Your task to perform on an android device: Open the calendar and show me this week's events? Image 0: 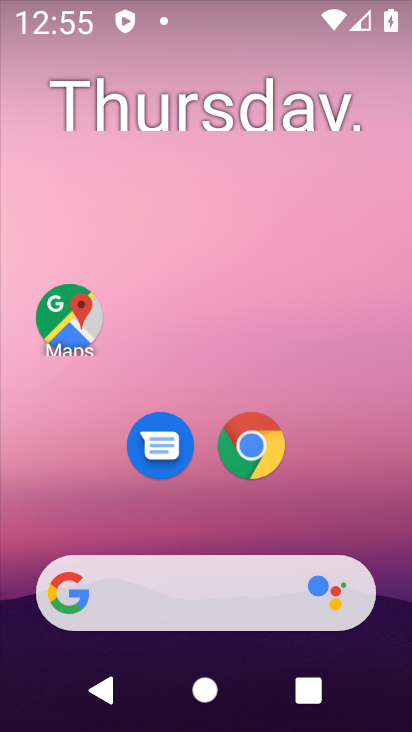
Step 0: click (221, 102)
Your task to perform on an android device: Open the calendar and show me this week's events? Image 1: 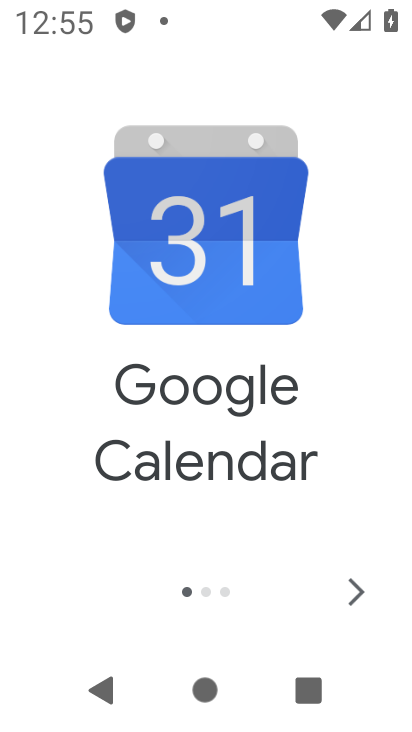
Step 1: click (339, 584)
Your task to perform on an android device: Open the calendar and show me this week's events? Image 2: 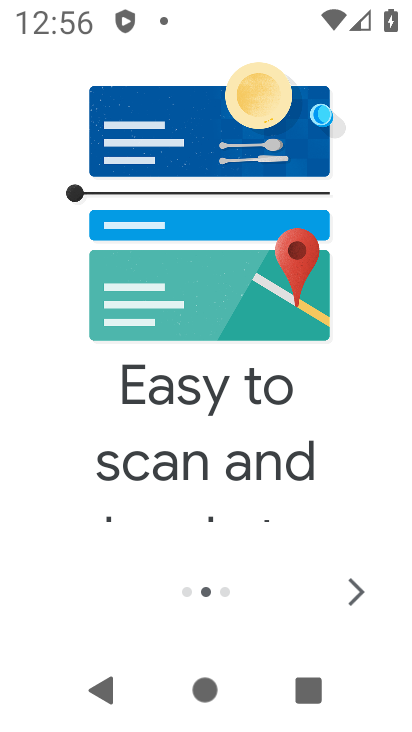
Step 2: click (358, 587)
Your task to perform on an android device: Open the calendar and show me this week's events? Image 3: 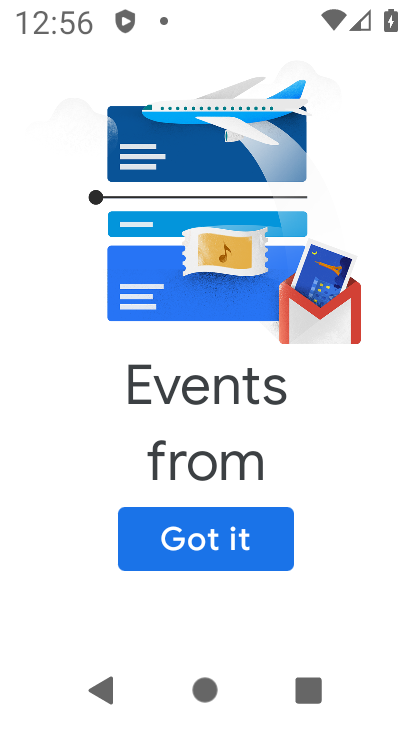
Step 3: click (274, 573)
Your task to perform on an android device: Open the calendar and show me this week's events? Image 4: 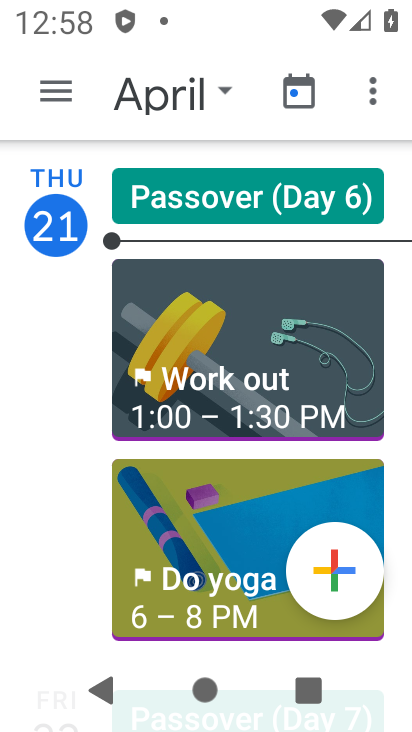
Step 4: click (190, 95)
Your task to perform on an android device: Open the calendar and show me this week's events? Image 5: 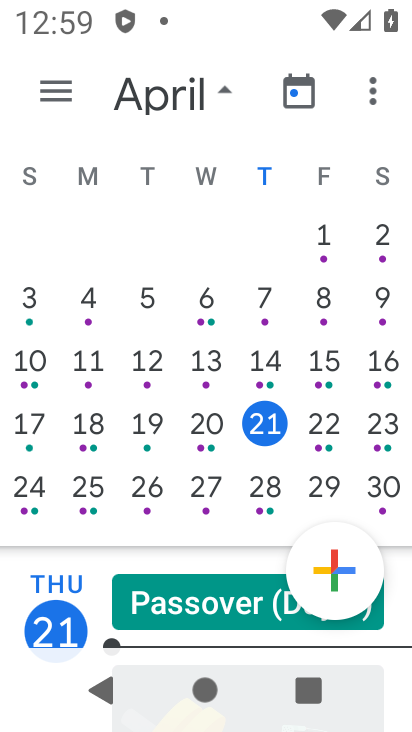
Step 5: click (219, 483)
Your task to perform on an android device: Open the calendar and show me this week's events? Image 6: 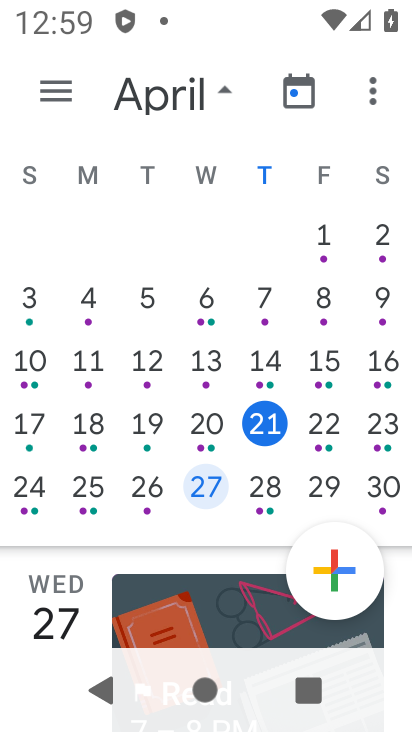
Step 6: task complete